Your task to perform on an android device: Open Google Chrome and click the shortcut for Amazon.com Image 0: 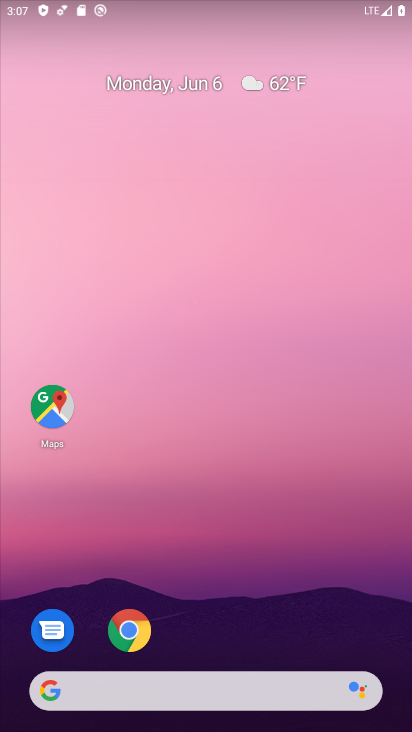
Step 0: press home button
Your task to perform on an android device: Open Google Chrome and click the shortcut for Amazon.com Image 1: 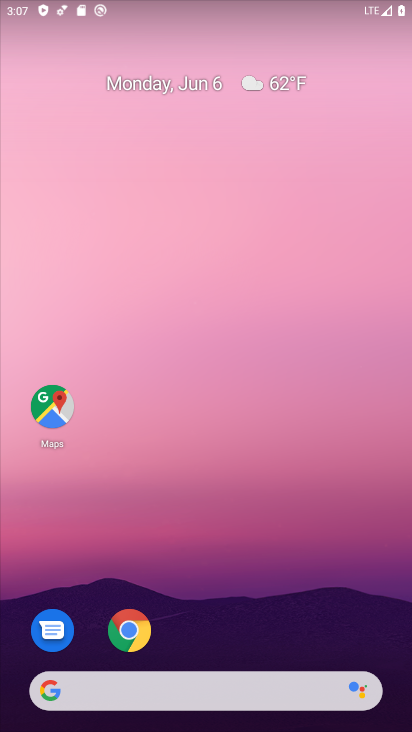
Step 1: click (336, 612)
Your task to perform on an android device: Open Google Chrome and click the shortcut for Amazon.com Image 2: 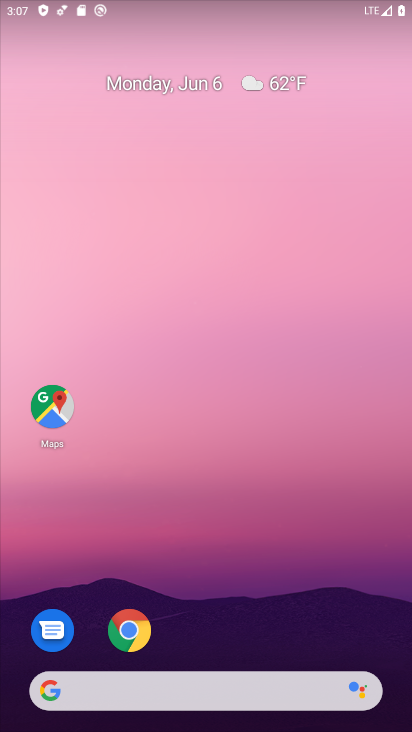
Step 2: click (136, 626)
Your task to perform on an android device: Open Google Chrome and click the shortcut for Amazon.com Image 3: 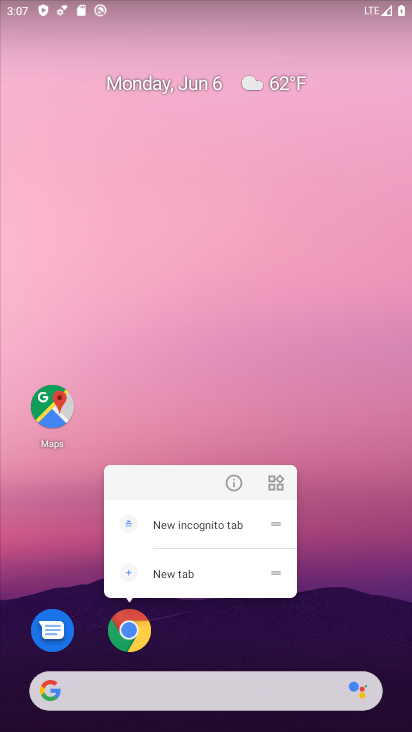
Step 3: click (116, 625)
Your task to perform on an android device: Open Google Chrome and click the shortcut for Amazon.com Image 4: 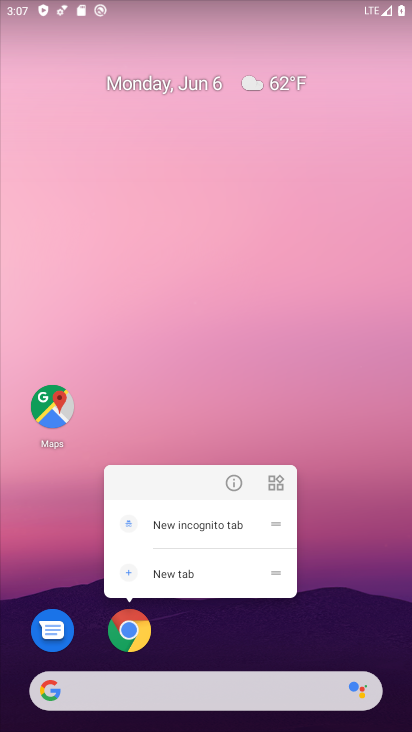
Step 4: click (133, 627)
Your task to perform on an android device: Open Google Chrome and click the shortcut for Amazon.com Image 5: 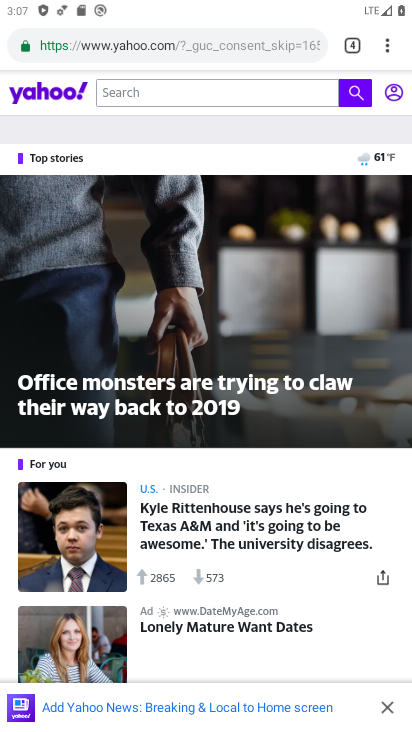
Step 5: drag from (395, 36) to (230, 72)
Your task to perform on an android device: Open Google Chrome and click the shortcut for Amazon.com Image 6: 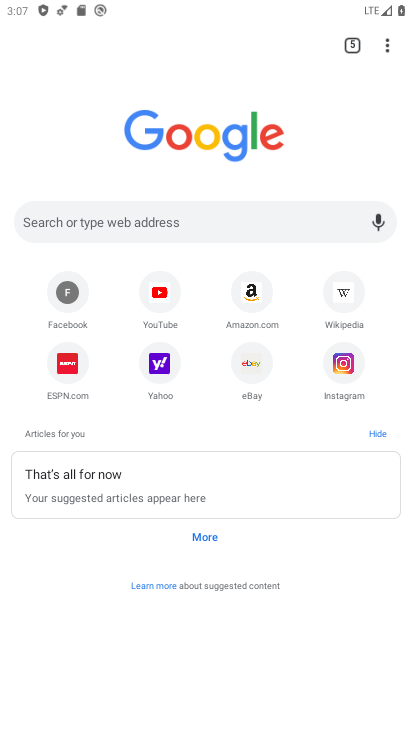
Step 6: click (251, 301)
Your task to perform on an android device: Open Google Chrome and click the shortcut for Amazon.com Image 7: 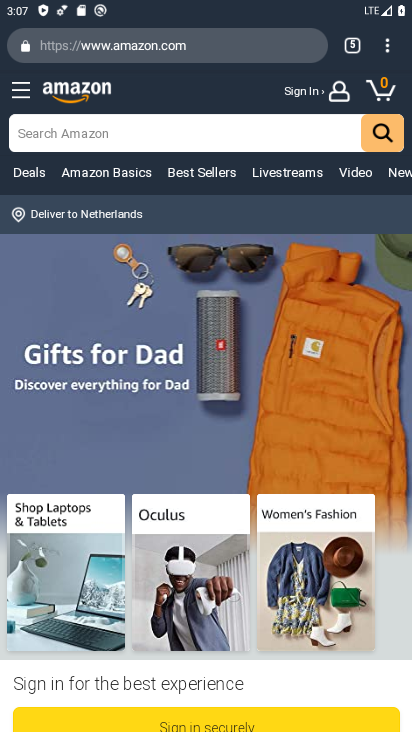
Step 7: task complete